Your task to perform on an android device: turn off location history Image 0: 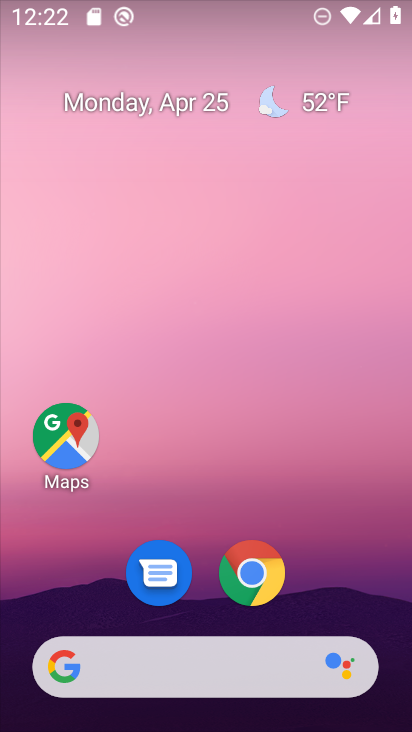
Step 0: drag from (233, 727) to (202, 172)
Your task to perform on an android device: turn off location history Image 1: 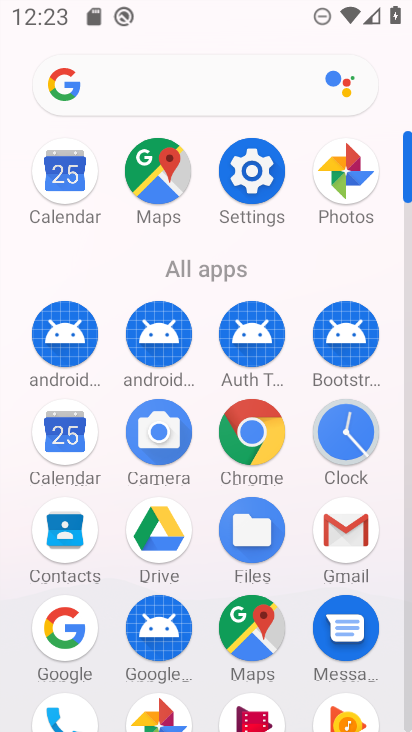
Step 1: click (256, 167)
Your task to perform on an android device: turn off location history Image 2: 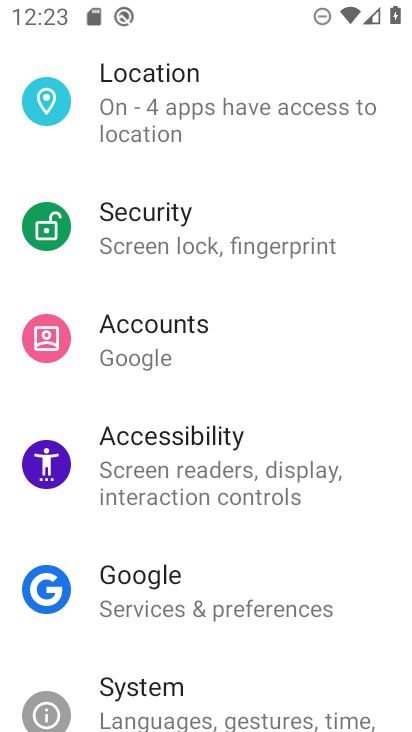
Step 2: click (163, 93)
Your task to perform on an android device: turn off location history Image 3: 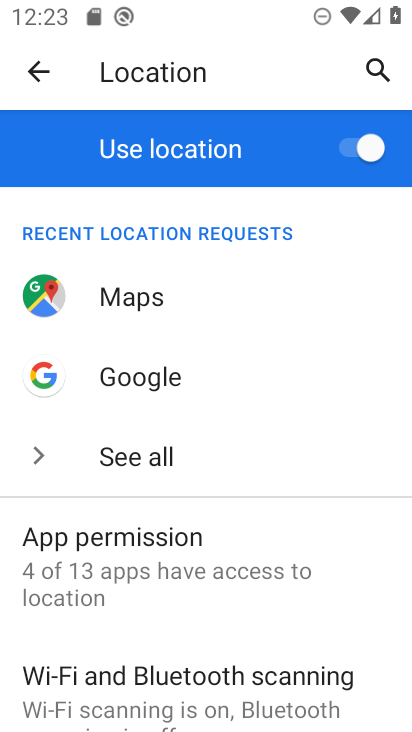
Step 3: drag from (190, 647) to (184, 285)
Your task to perform on an android device: turn off location history Image 4: 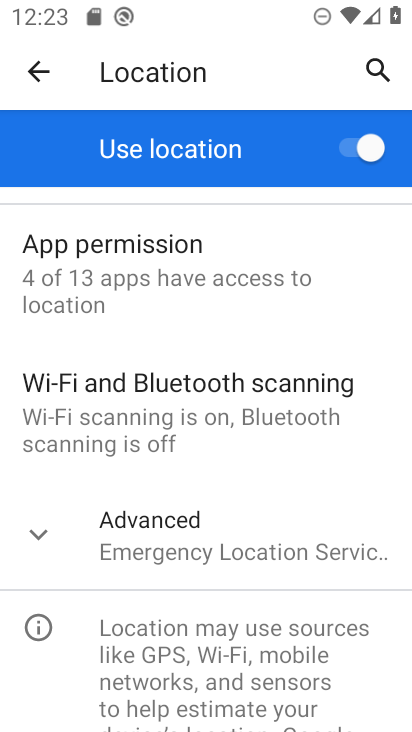
Step 4: click (156, 547)
Your task to perform on an android device: turn off location history Image 5: 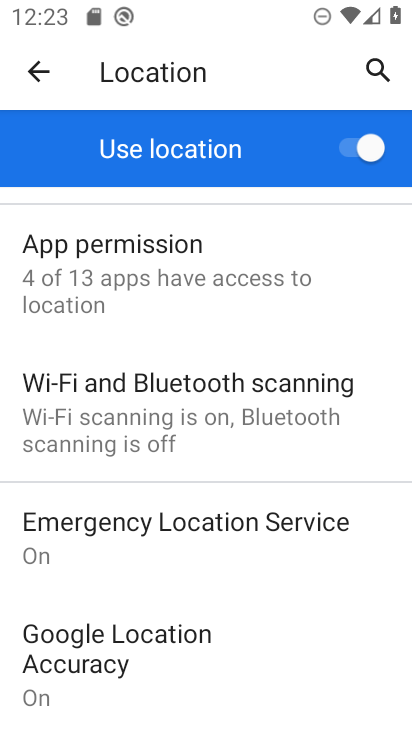
Step 5: drag from (230, 692) to (221, 384)
Your task to perform on an android device: turn off location history Image 6: 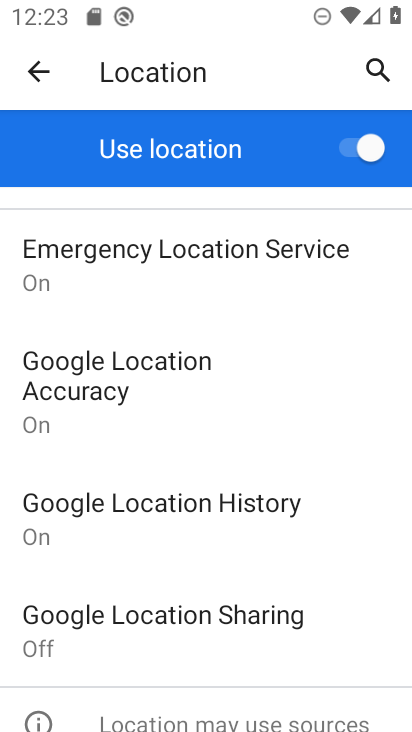
Step 6: click (157, 500)
Your task to perform on an android device: turn off location history Image 7: 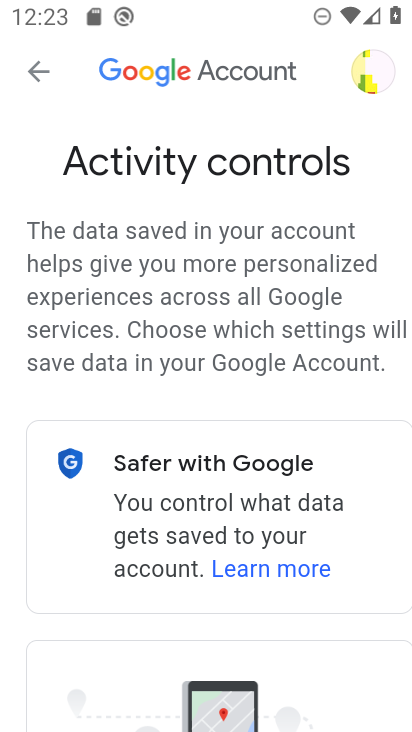
Step 7: drag from (296, 658) to (296, 403)
Your task to perform on an android device: turn off location history Image 8: 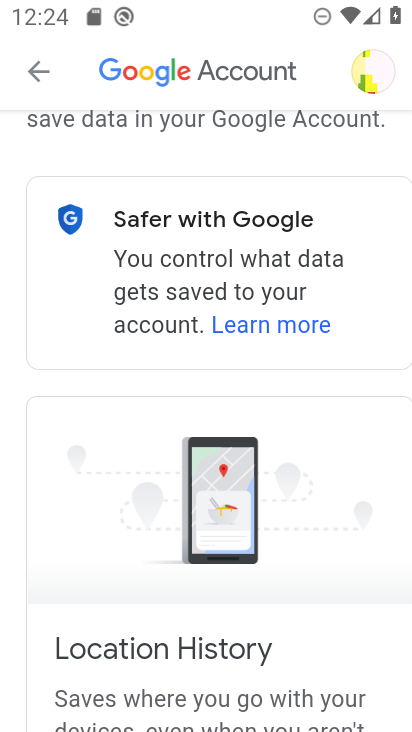
Step 8: drag from (254, 712) to (269, 225)
Your task to perform on an android device: turn off location history Image 9: 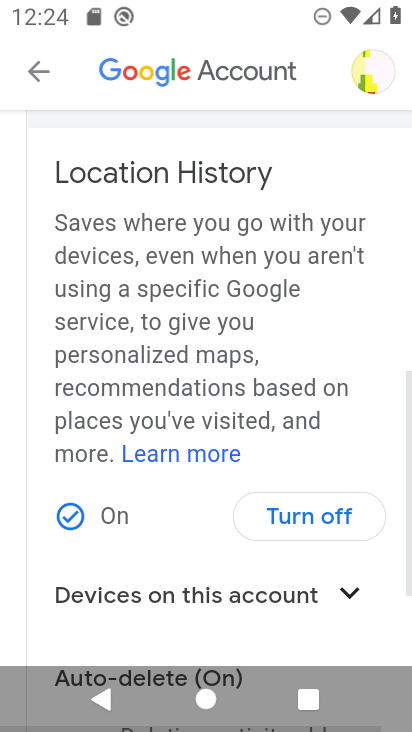
Step 9: drag from (279, 626) to (282, 316)
Your task to perform on an android device: turn off location history Image 10: 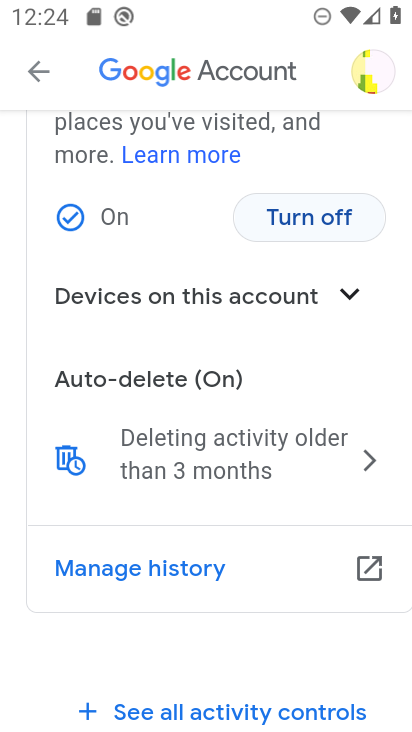
Step 10: click (295, 210)
Your task to perform on an android device: turn off location history Image 11: 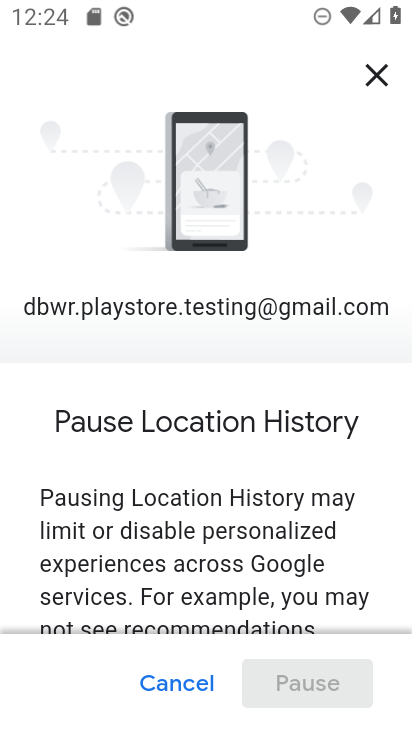
Step 11: drag from (223, 511) to (223, 205)
Your task to perform on an android device: turn off location history Image 12: 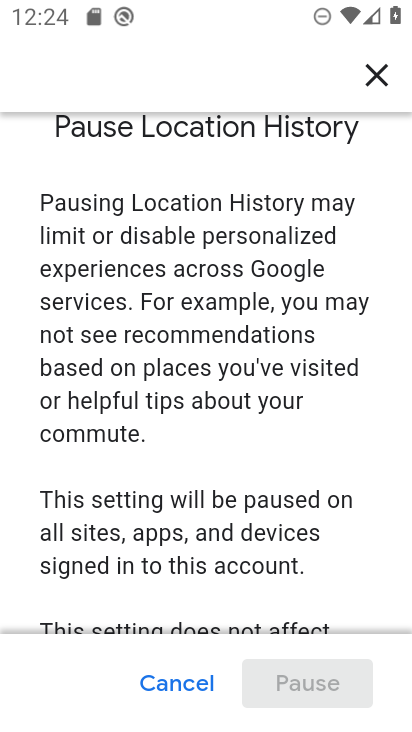
Step 12: drag from (259, 611) to (262, 277)
Your task to perform on an android device: turn off location history Image 13: 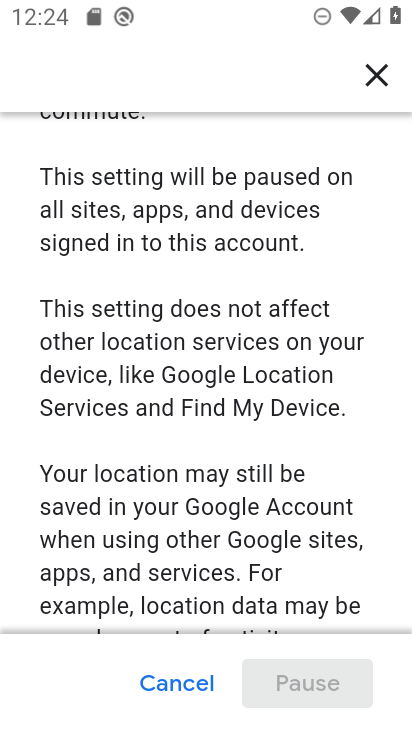
Step 13: drag from (267, 604) to (266, 220)
Your task to perform on an android device: turn off location history Image 14: 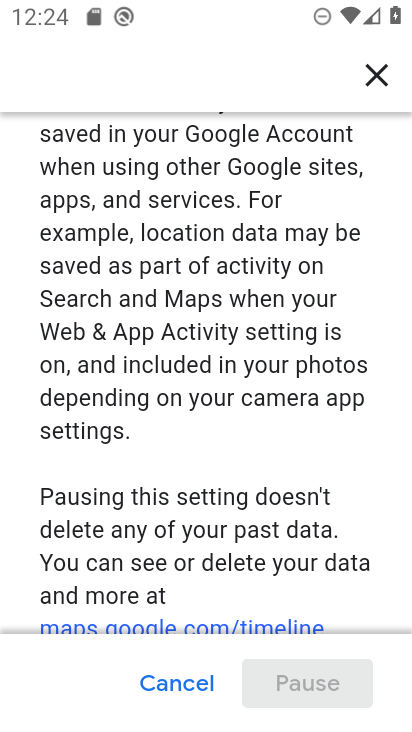
Step 14: drag from (255, 597) to (257, 169)
Your task to perform on an android device: turn off location history Image 15: 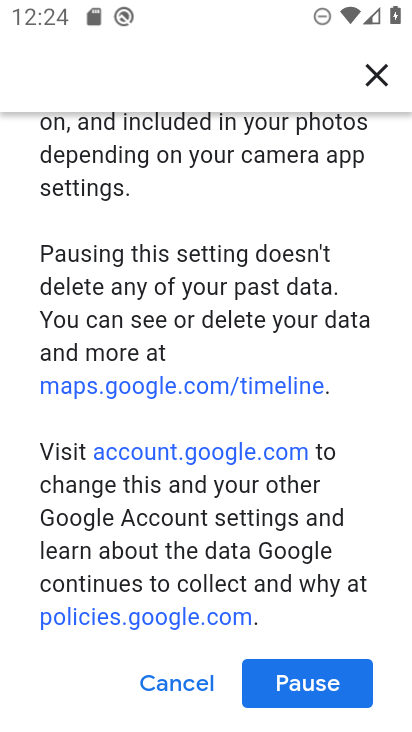
Step 15: click (308, 683)
Your task to perform on an android device: turn off location history Image 16: 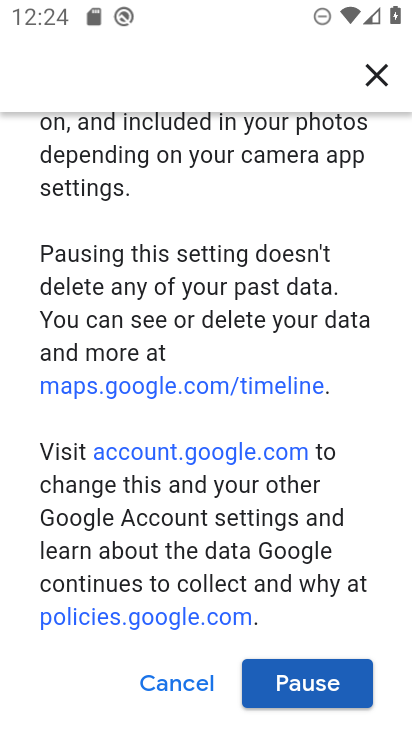
Step 16: click (307, 684)
Your task to perform on an android device: turn off location history Image 17: 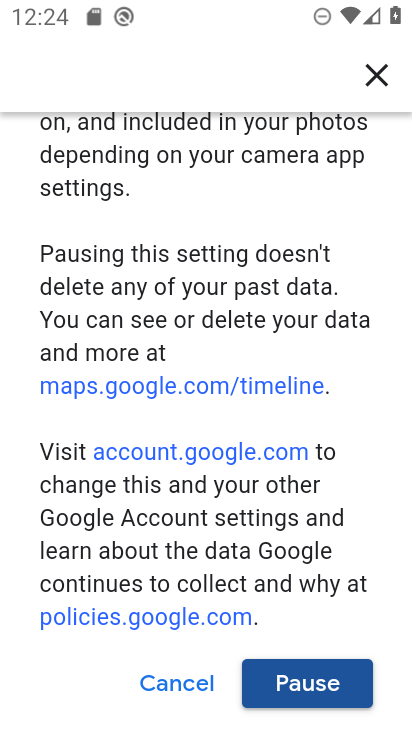
Step 17: click (312, 682)
Your task to perform on an android device: turn off location history Image 18: 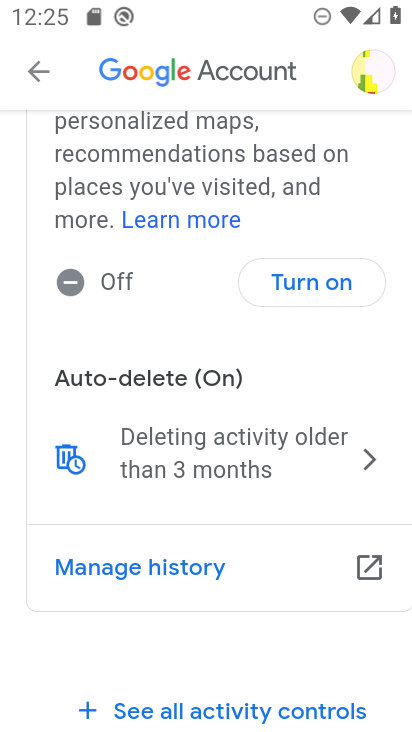
Step 18: task complete